Your task to perform on an android device: turn on sleep mode Image 0: 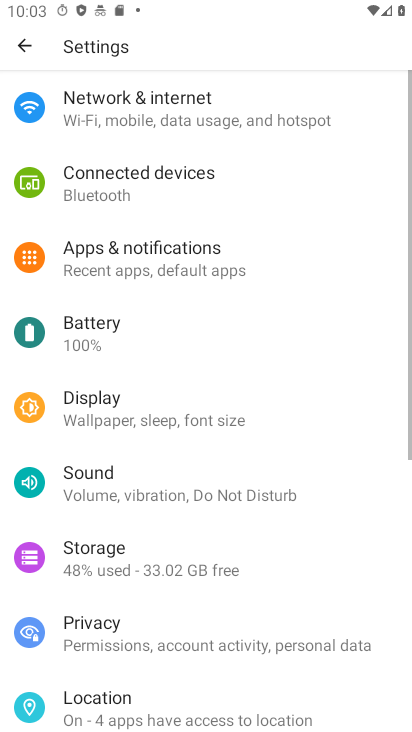
Step 0: click (107, 415)
Your task to perform on an android device: turn on sleep mode Image 1: 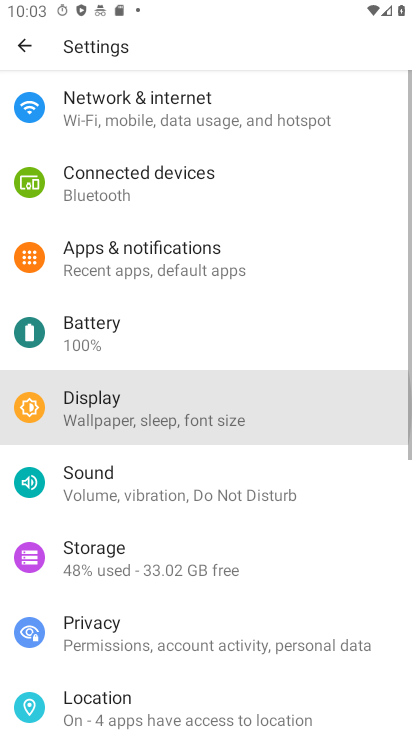
Step 1: click (107, 415)
Your task to perform on an android device: turn on sleep mode Image 2: 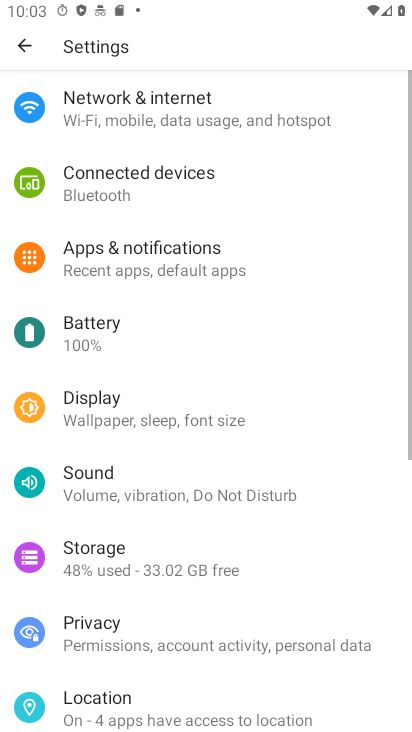
Step 2: click (107, 415)
Your task to perform on an android device: turn on sleep mode Image 3: 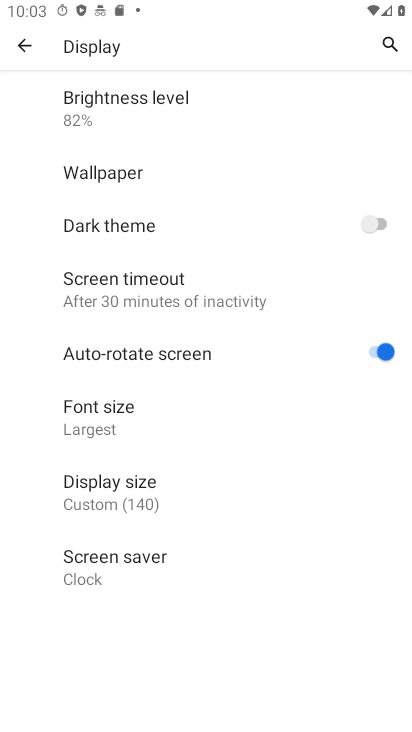
Step 3: click (135, 289)
Your task to perform on an android device: turn on sleep mode Image 4: 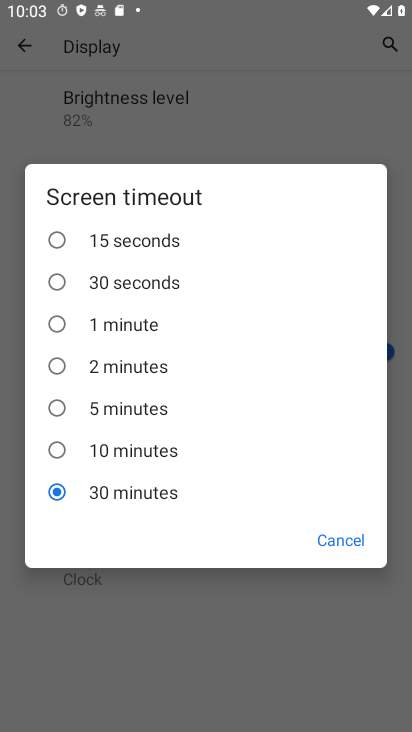
Step 4: click (57, 358)
Your task to perform on an android device: turn on sleep mode Image 5: 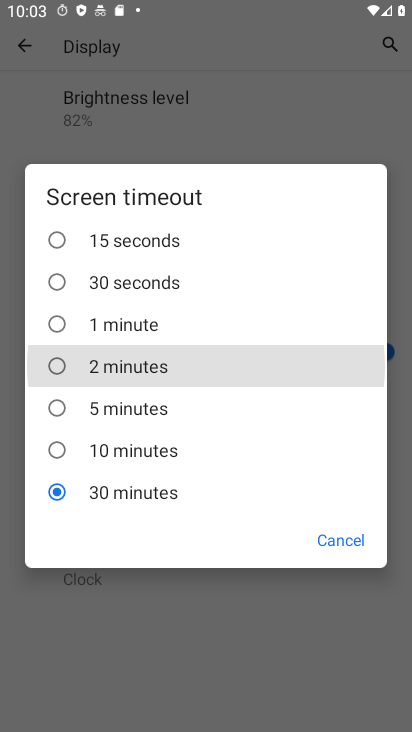
Step 5: click (57, 358)
Your task to perform on an android device: turn on sleep mode Image 6: 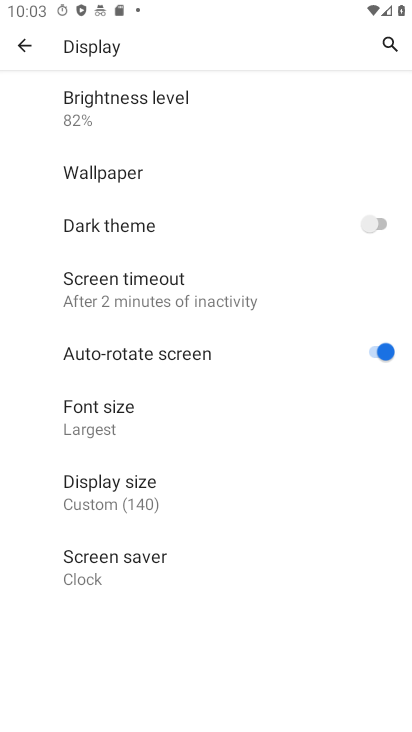
Step 6: click (57, 359)
Your task to perform on an android device: turn on sleep mode Image 7: 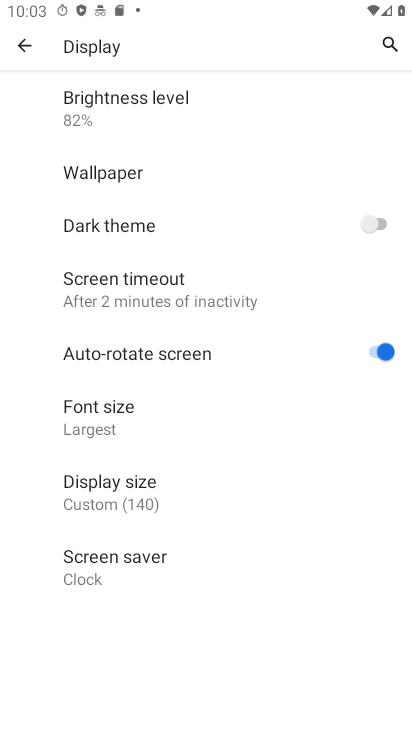
Step 7: task complete